Your task to perform on an android device: See recent photos Image 0: 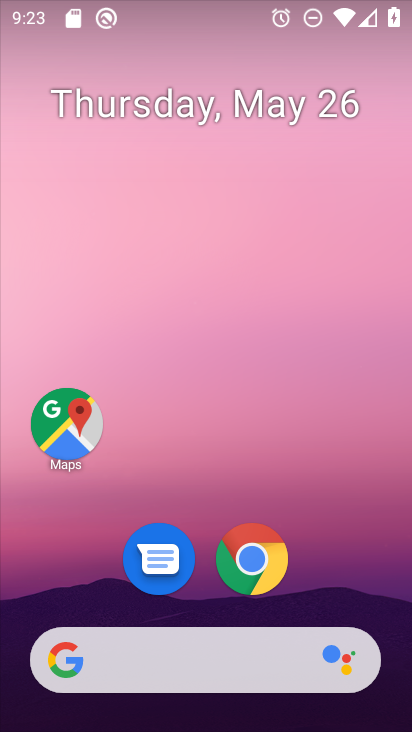
Step 0: drag from (314, 560) to (294, 125)
Your task to perform on an android device: See recent photos Image 1: 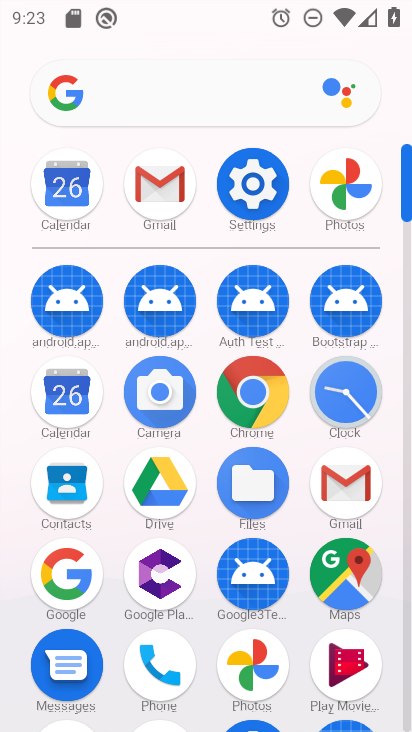
Step 1: click (338, 182)
Your task to perform on an android device: See recent photos Image 2: 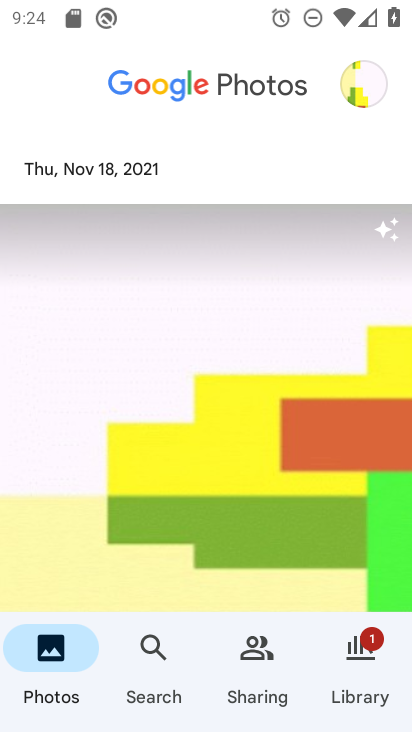
Step 2: task complete